Your task to perform on an android device: find which apps use the phone's location Image 0: 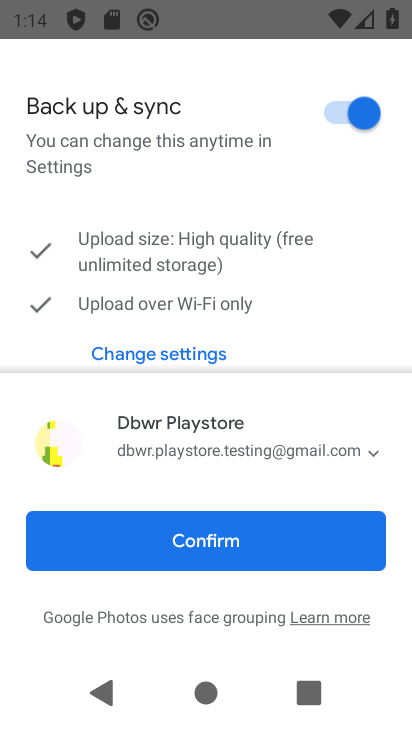
Step 0: press home button
Your task to perform on an android device: find which apps use the phone's location Image 1: 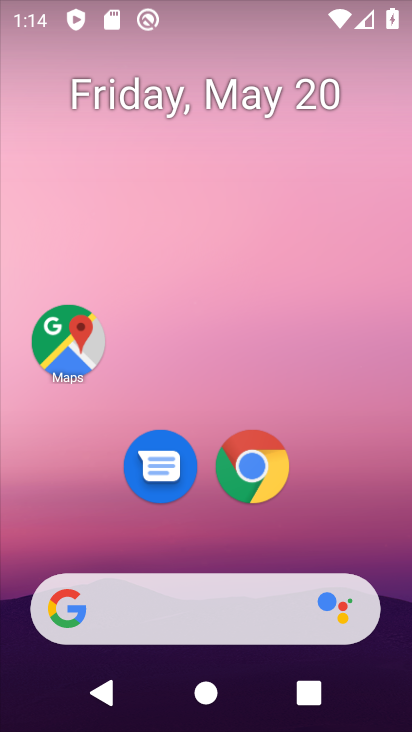
Step 1: drag from (204, 545) to (210, 133)
Your task to perform on an android device: find which apps use the phone's location Image 2: 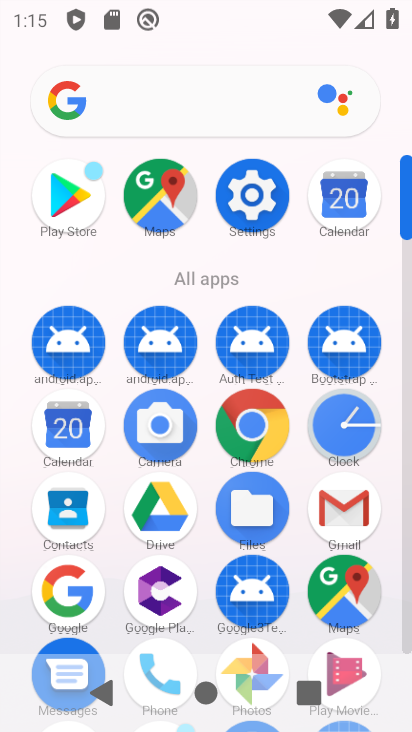
Step 2: click (251, 207)
Your task to perform on an android device: find which apps use the phone's location Image 3: 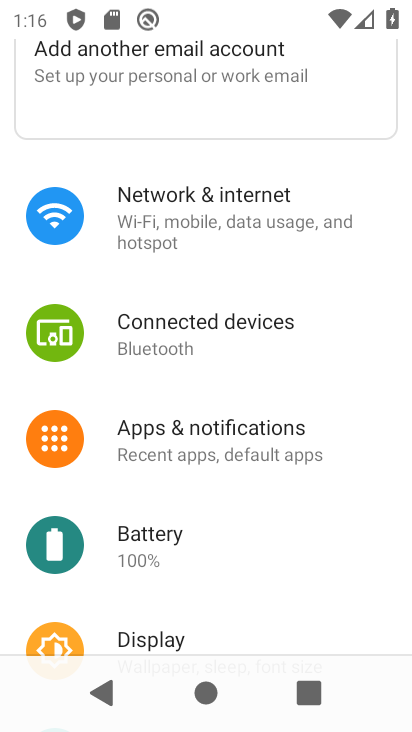
Step 3: drag from (203, 539) to (194, 193)
Your task to perform on an android device: find which apps use the phone's location Image 4: 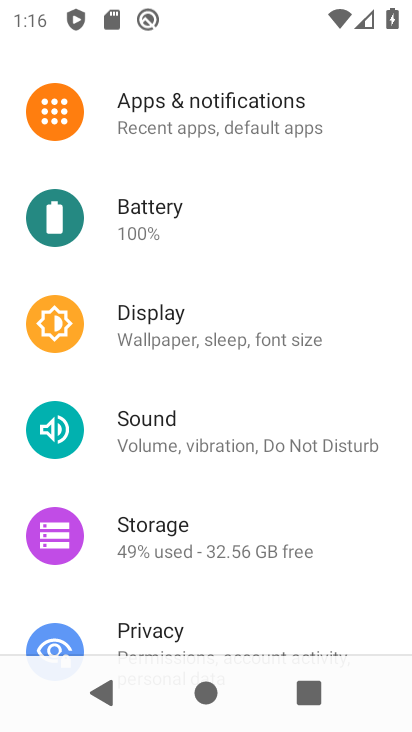
Step 4: drag from (232, 589) to (237, 317)
Your task to perform on an android device: find which apps use the phone's location Image 5: 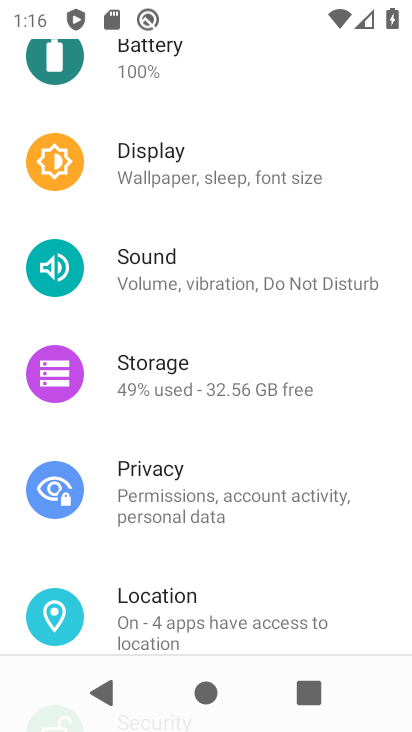
Step 5: click (219, 601)
Your task to perform on an android device: find which apps use the phone's location Image 6: 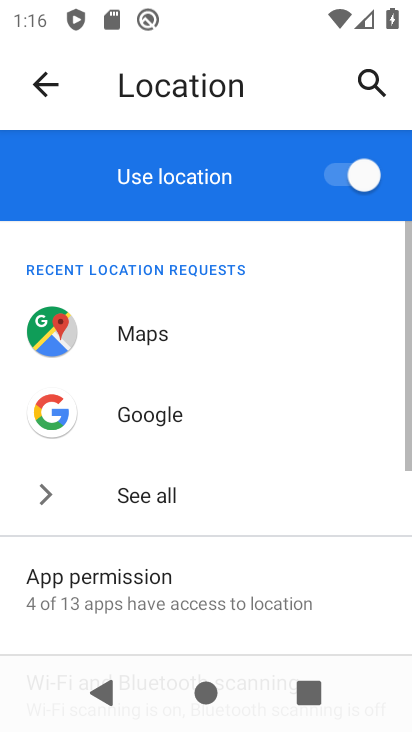
Step 6: drag from (217, 580) to (210, 322)
Your task to perform on an android device: find which apps use the phone's location Image 7: 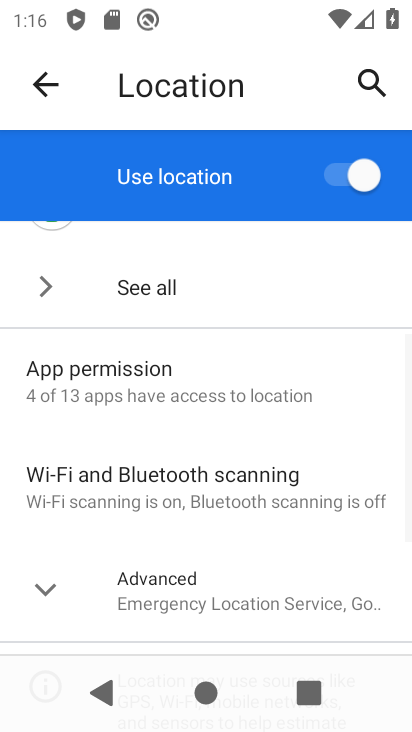
Step 7: click (157, 396)
Your task to perform on an android device: find which apps use the phone's location Image 8: 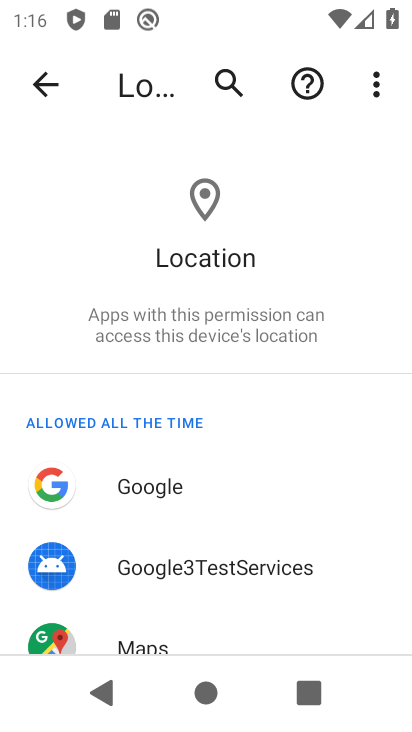
Step 8: task complete